Your task to perform on an android device: turn off data saver in the chrome app Image 0: 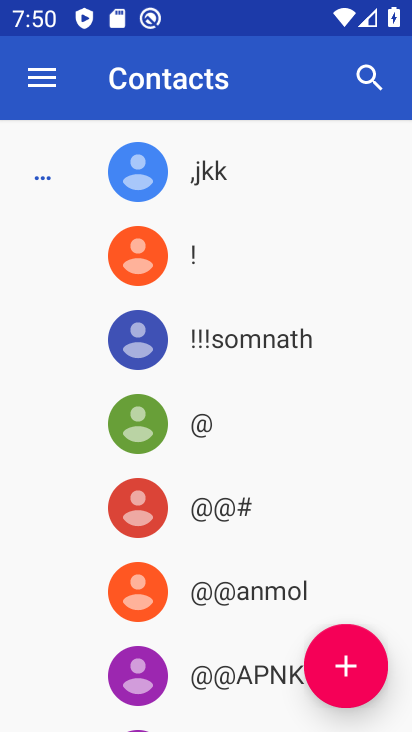
Step 0: press home button
Your task to perform on an android device: turn off data saver in the chrome app Image 1: 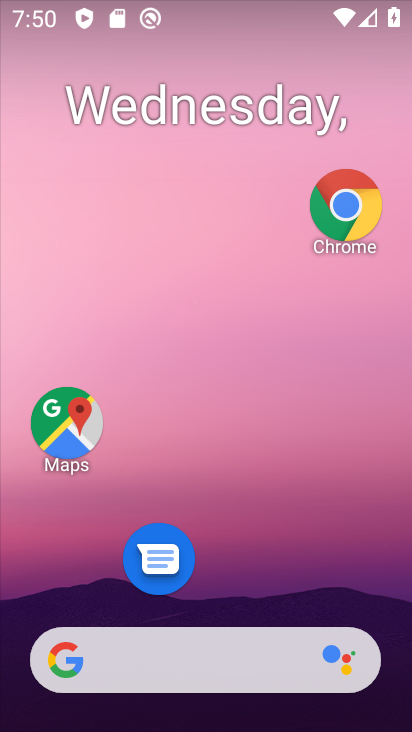
Step 1: click (259, 111)
Your task to perform on an android device: turn off data saver in the chrome app Image 2: 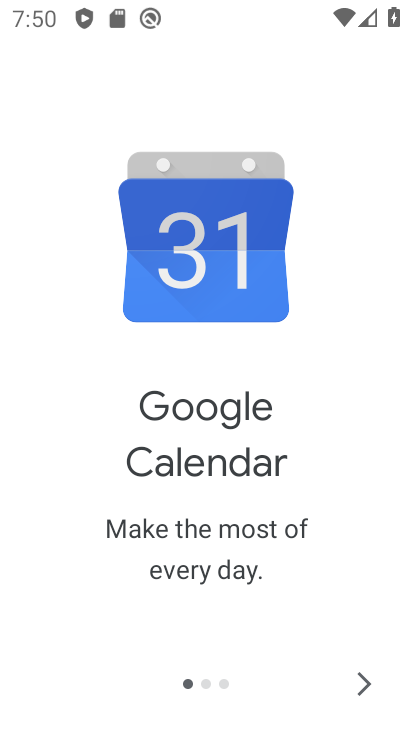
Step 2: press home button
Your task to perform on an android device: turn off data saver in the chrome app Image 3: 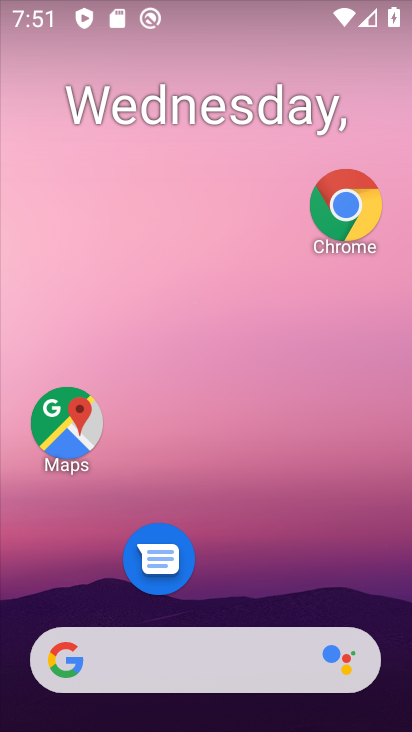
Step 3: click (344, 205)
Your task to perform on an android device: turn off data saver in the chrome app Image 4: 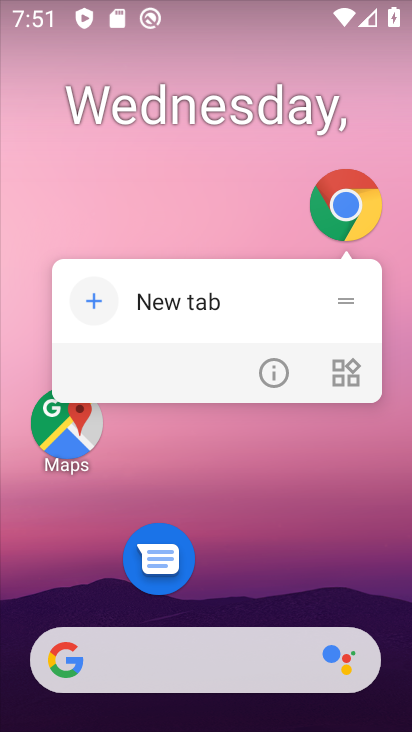
Step 4: click (271, 371)
Your task to perform on an android device: turn off data saver in the chrome app Image 5: 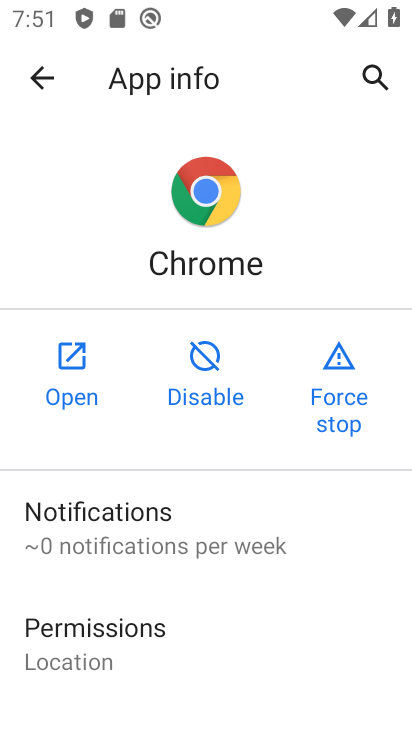
Step 5: click (74, 367)
Your task to perform on an android device: turn off data saver in the chrome app Image 6: 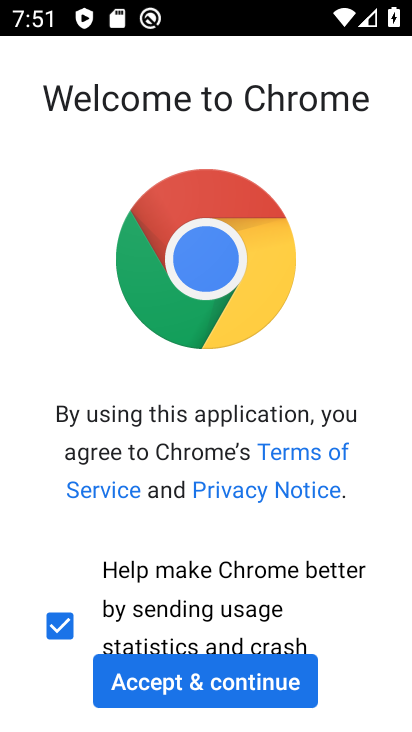
Step 6: click (193, 674)
Your task to perform on an android device: turn off data saver in the chrome app Image 7: 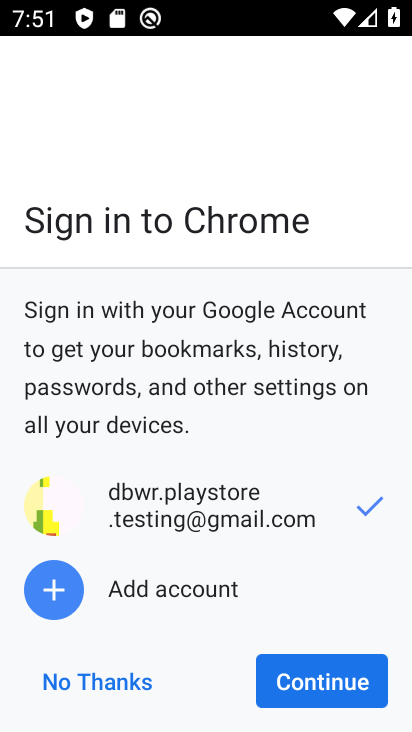
Step 7: click (335, 676)
Your task to perform on an android device: turn off data saver in the chrome app Image 8: 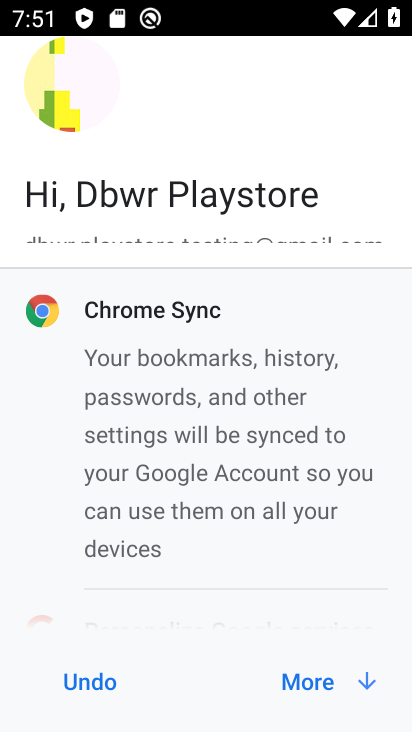
Step 8: click (334, 666)
Your task to perform on an android device: turn off data saver in the chrome app Image 9: 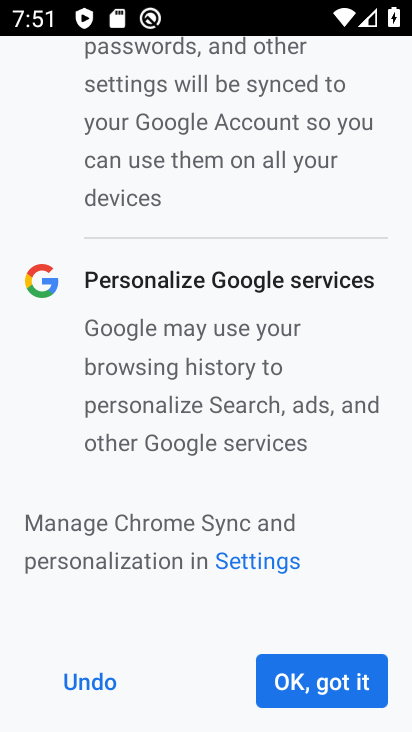
Step 9: click (354, 694)
Your task to perform on an android device: turn off data saver in the chrome app Image 10: 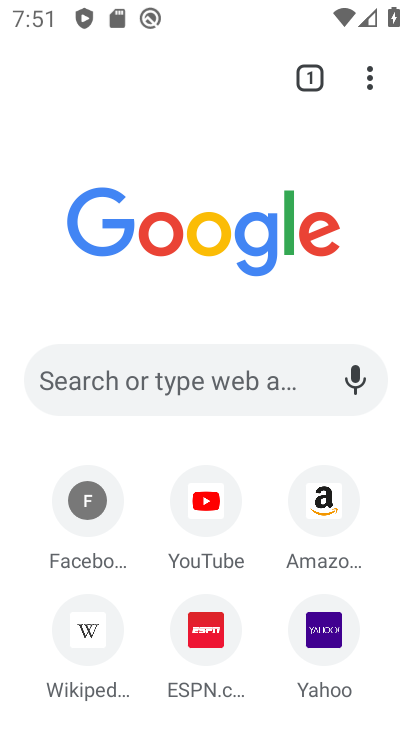
Step 10: drag from (260, 634) to (317, 192)
Your task to perform on an android device: turn off data saver in the chrome app Image 11: 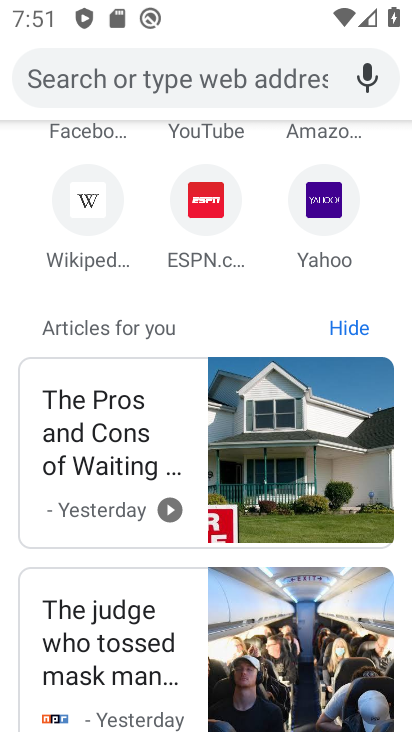
Step 11: drag from (255, 215) to (244, 671)
Your task to perform on an android device: turn off data saver in the chrome app Image 12: 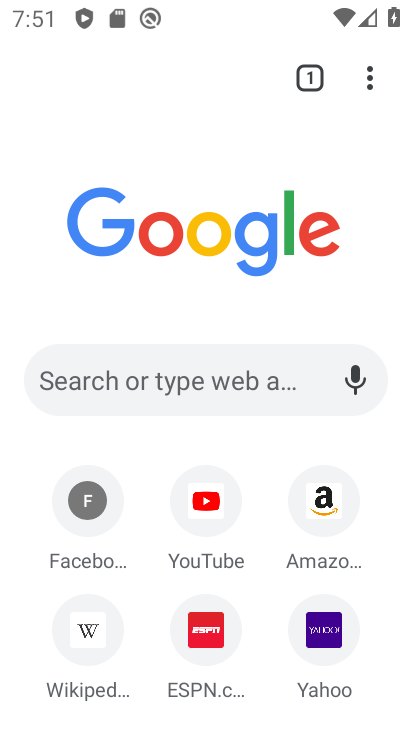
Step 12: click (367, 75)
Your task to perform on an android device: turn off data saver in the chrome app Image 13: 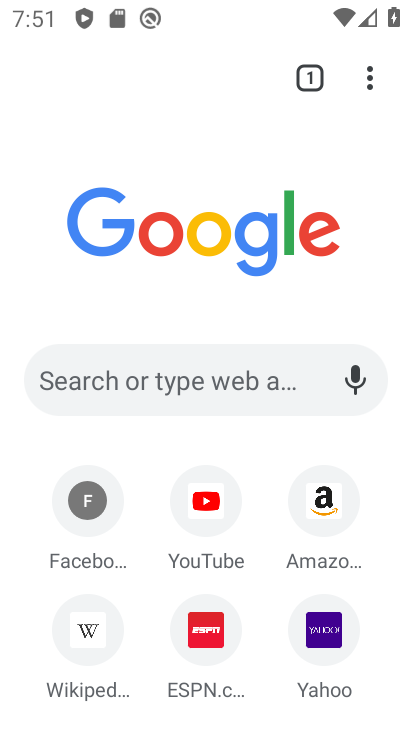
Step 13: click (391, 54)
Your task to perform on an android device: turn off data saver in the chrome app Image 14: 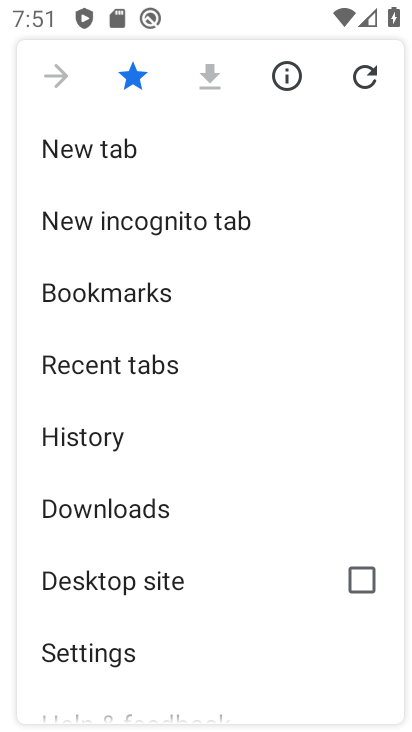
Step 14: drag from (163, 613) to (160, 14)
Your task to perform on an android device: turn off data saver in the chrome app Image 15: 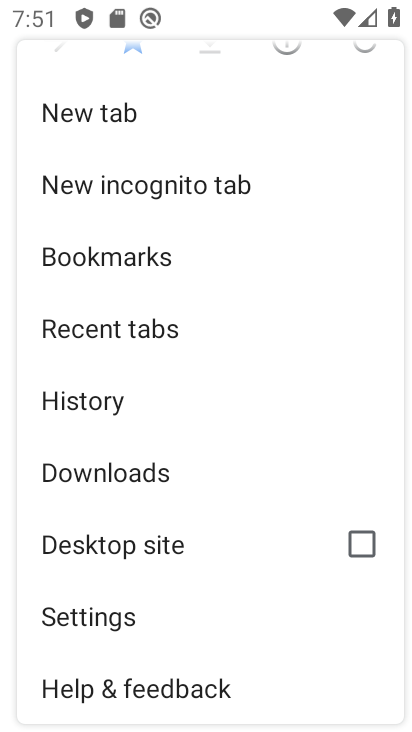
Step 15: click (105, 627)
Your task to perform on an android device: turn off data saver in the chrome app Image 16: 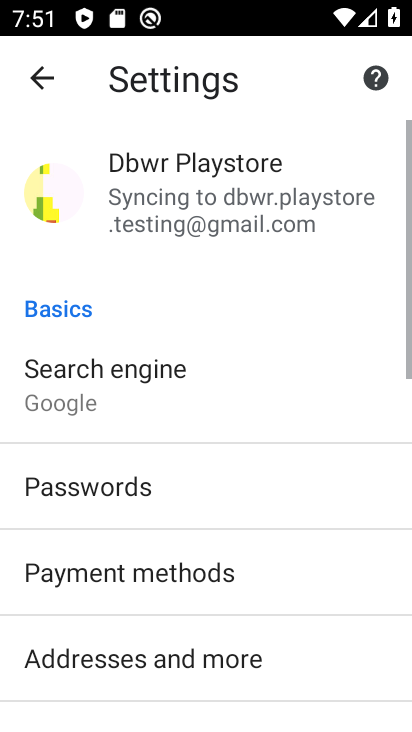
Step 16: drag from (158, 509) to (239, 93)
Your task to perform on an android device: turn off data saver in the chrome app Image 17: 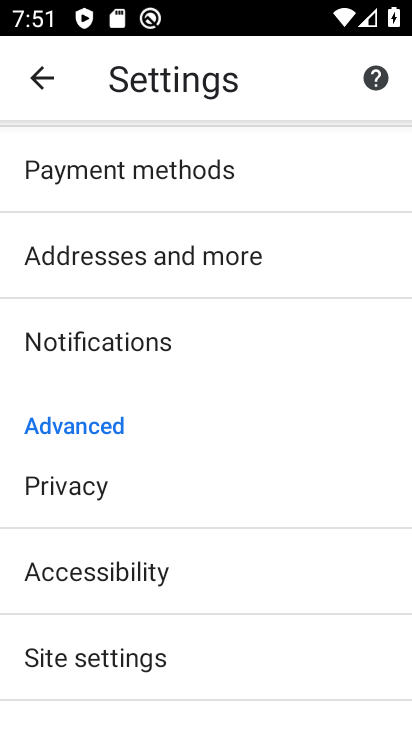
Step 17: drag from (145, 627) to (248, 236)
Your task to perform on an android device: turn off data saver in the chrome app Image 18: 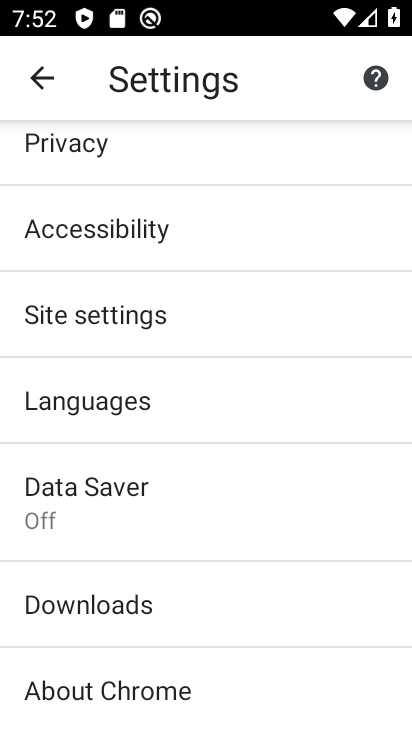
Step 18: click (125, 502)
Your task to perform on an android device: turn off data saver in the chrome app Image 19: 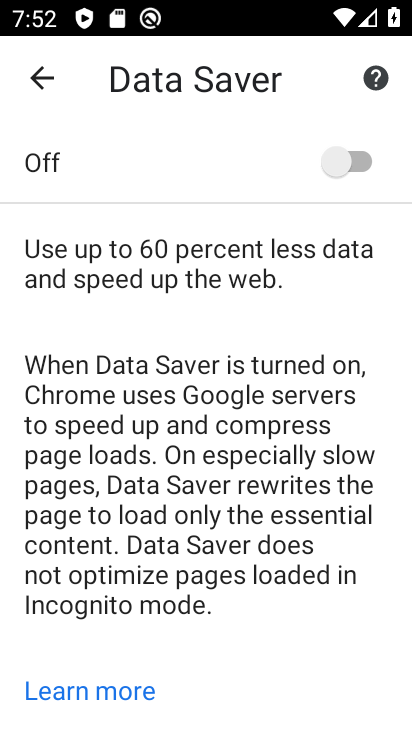
Step 19: task complete